Your task to perform on an android device: open app "Truecaller" (install if not already installed) Image 0: 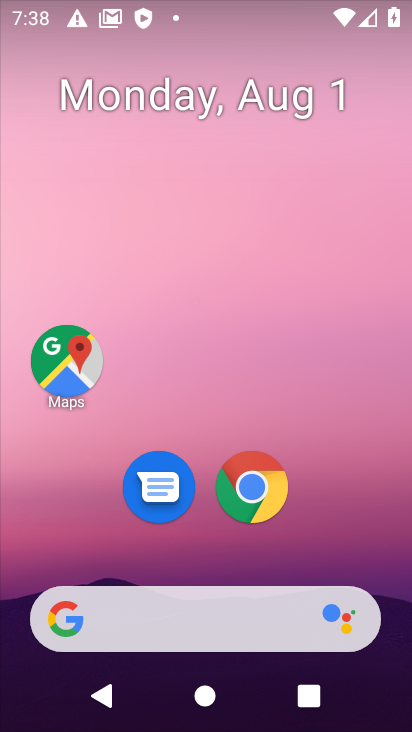
Step 0: press home button
Your task to perform on an android device: open app "Truecaller" (install if not already installed) Image 1: 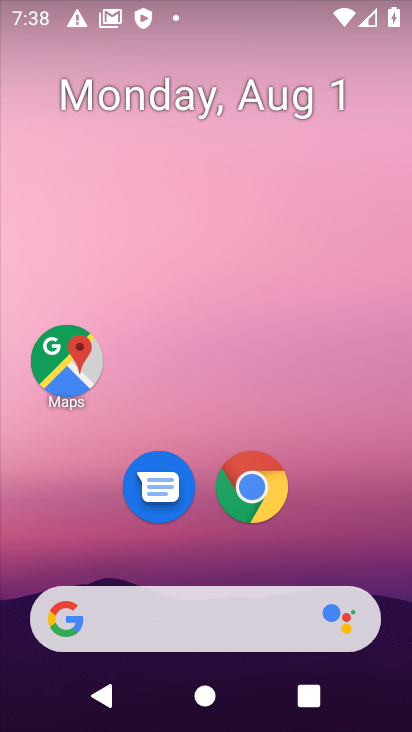
Step 1: click (374, 117)
Your task to perform on an android device: open app "Truecaller" (install if not already installed) Image 2: 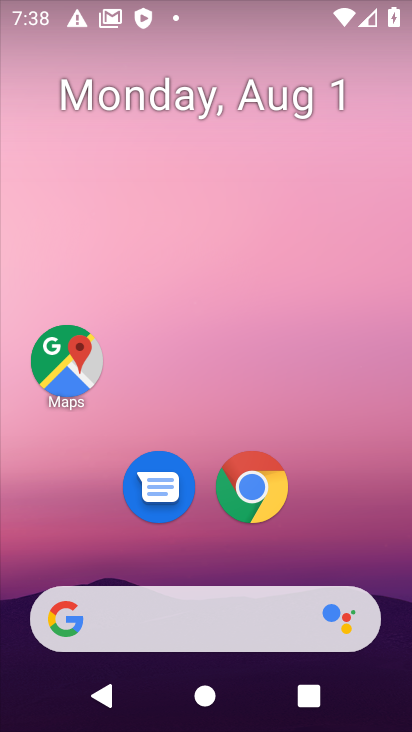
Step 2: drag from (384, 542) to (371, 32)
Your task to perform on an android device: open app "Truecaller" (install if not already installed) Image 3: 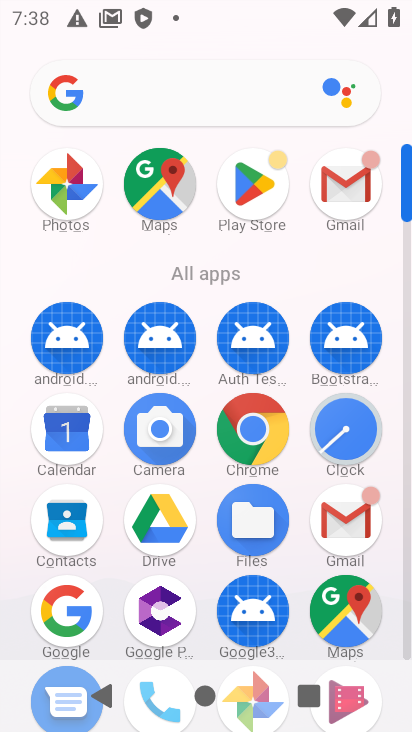
Step 3: click (257, 181)
Your task to perform on an android device: open app "Truecaller" (install if not already installed) Image 4: 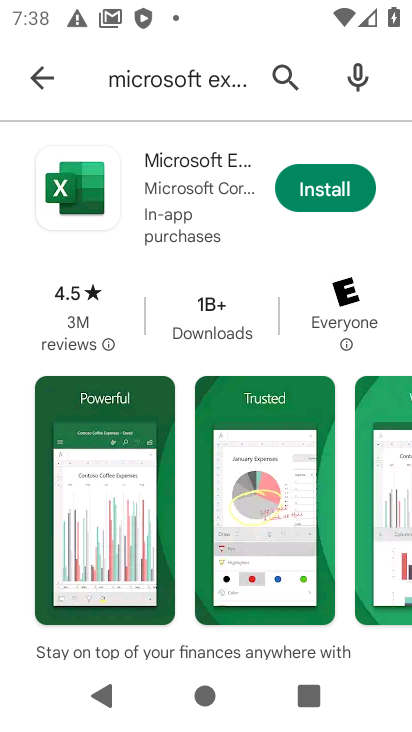
Step 4: click (279, 64)
Your task to perform on an android device: open app "Truecaller" (install if not already installed) Image 5: 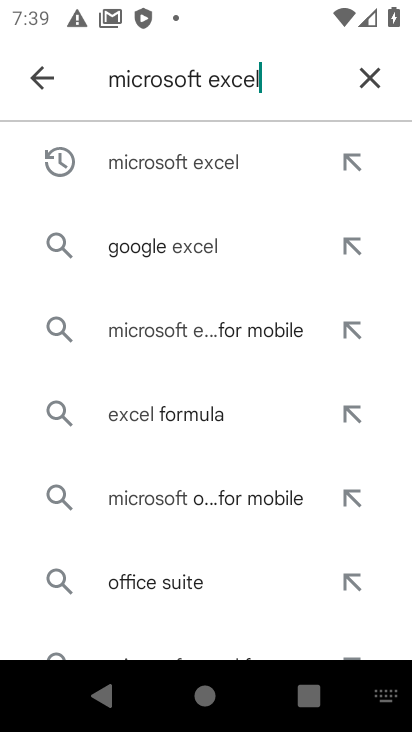
Step 5: click (375, 79)
Your task to perform on an android device: open app "Truecaller" (install if not already installed) Image 6: 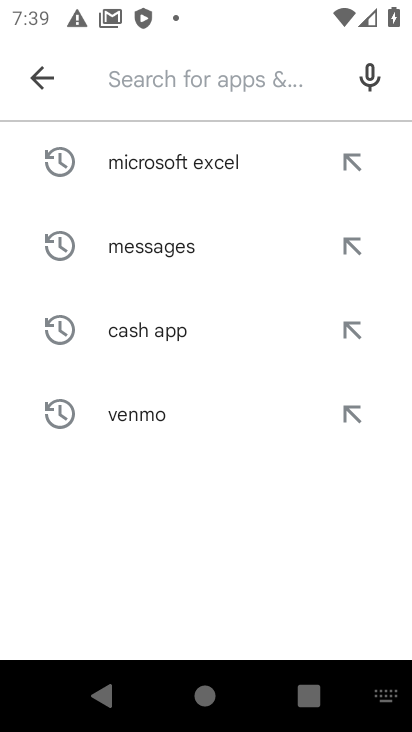
Step 6: type "truecaller"
Your task to perform on an android device: open app "Truecaller" (install if not already installed) Image 7: 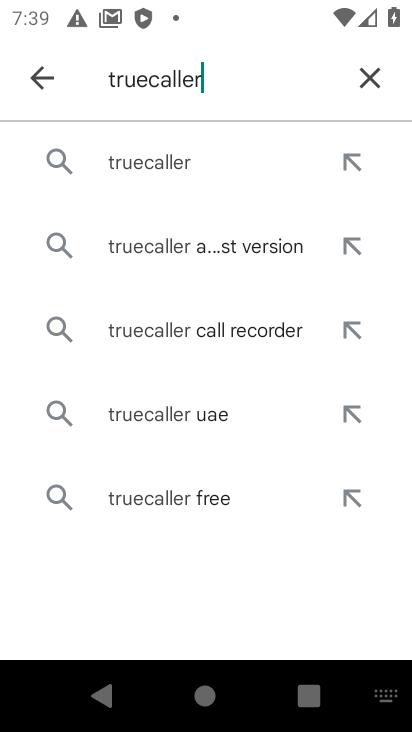
Step 7: click (283, 161)
Your task to perform on an android device: open app "Truecaller" (install if not already installed) Image 8: 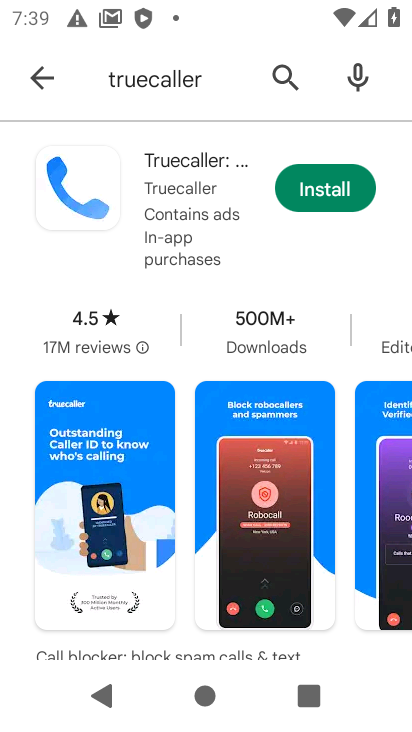
Step 8: click (336, 184)
Your task to perform on an android device: open app "Truecaller" (install if not already installed) Image 9: 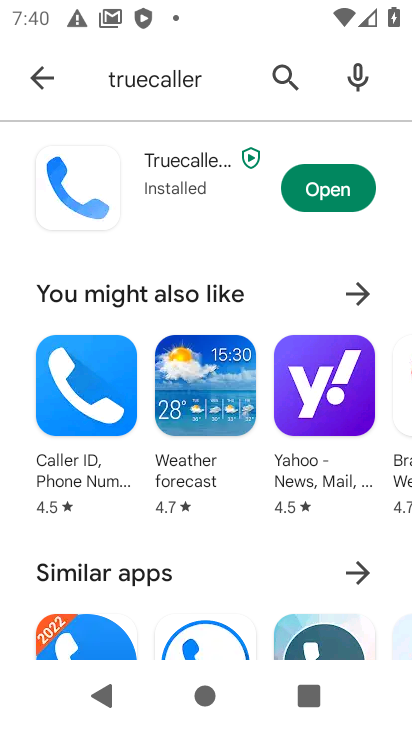
Step 9: click (328, 182)
Your task to perform on an android device: open app "Truecaller" (install if not already installed) Image 10: 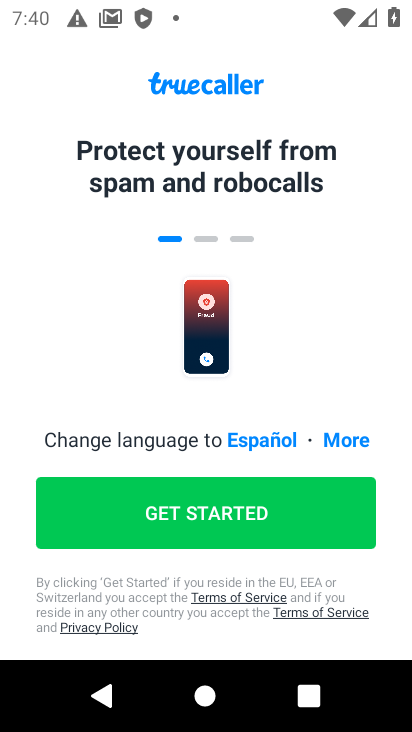
Step 10: task complete